Your task to perform on an android device: move a message to another label in the gmail app Image 0: 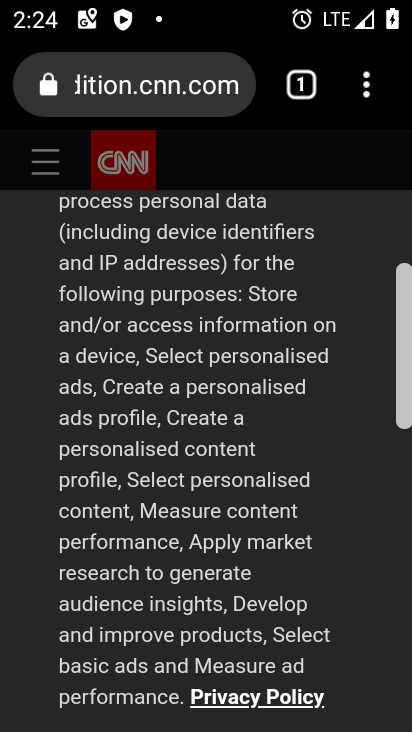
Step 0: press back button
Your task to perform on an android device: move a message to another label in the gmail app Image 1: 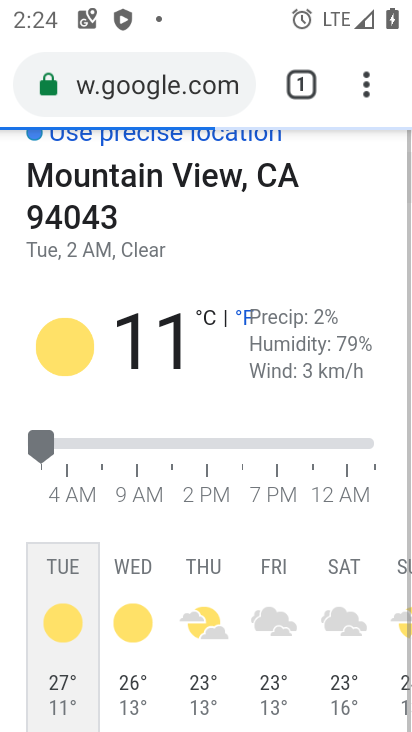
Step 1: press home button
Your task to perform on an android device: move a message to another label in the gmail app Image 2: 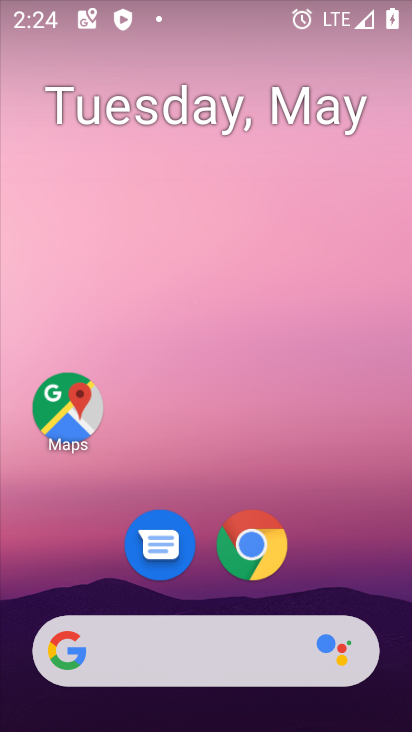
Step 2: drag from (321, 564) to (221, 57)
Your task to perform on an android device: move a message to another label in the gmail app Image 3: 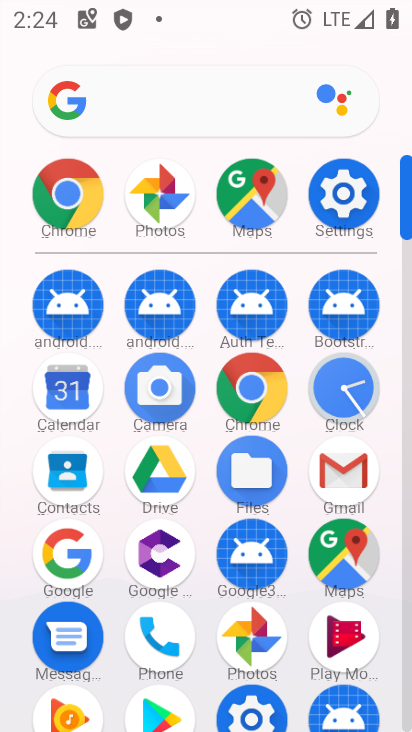
Step 3: click (341, 465)
Your task to perform on an android device: move a message to another label in the gmail app Image 4: 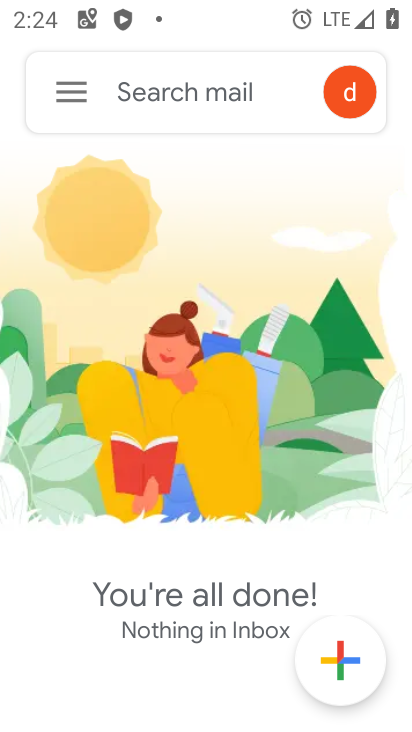
Step 4: click (73, 79)
Your task to perform on an android device: move a message to another label in the gmail app Image 5: 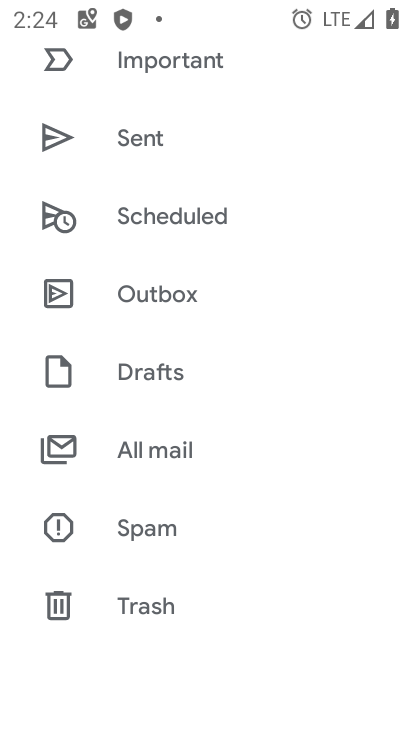
Step 5: drag from (244, 133) to (252, 548)
Your task to perform on an android device: move a message to another label in the gmail app Image 6: 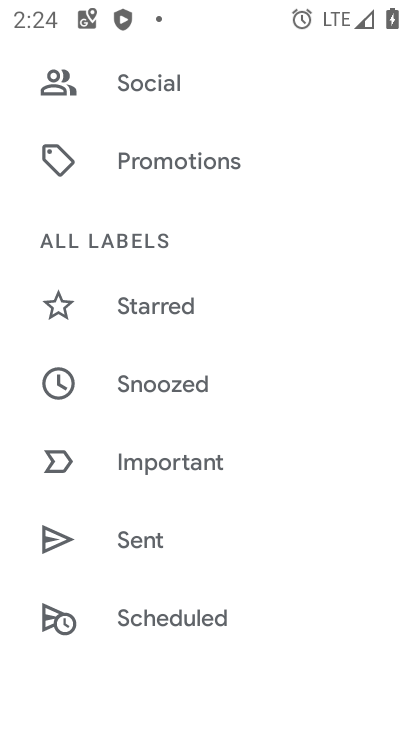
Step 6: drag from (237, 601) to (231, 142)
Your task to perform on an android device: move a message to another label in the gmail app Image 7: 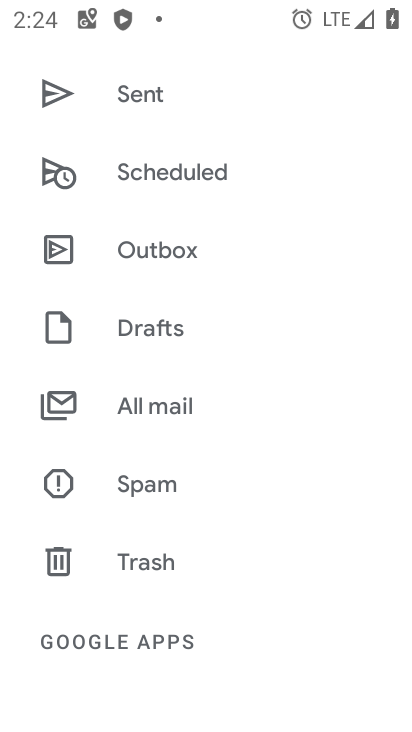
Step 7: click (167, 415)
Your task to perform on an android device: move a message to another label in the gmail app Image 8: 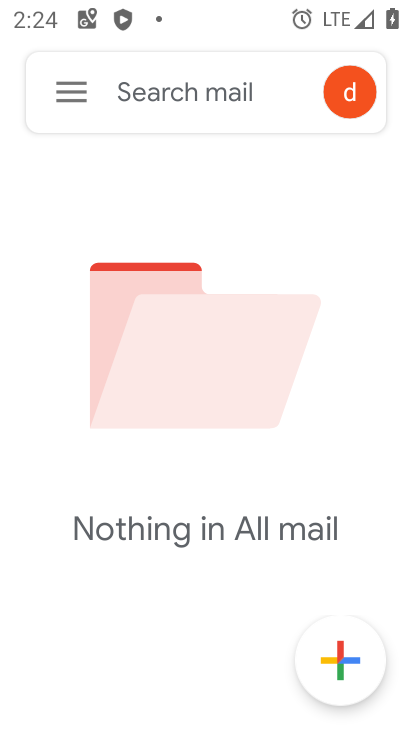
Step 8: click (60, 79)
Your task to perform on an android device: move a message to another label in the gmail app Image 9: 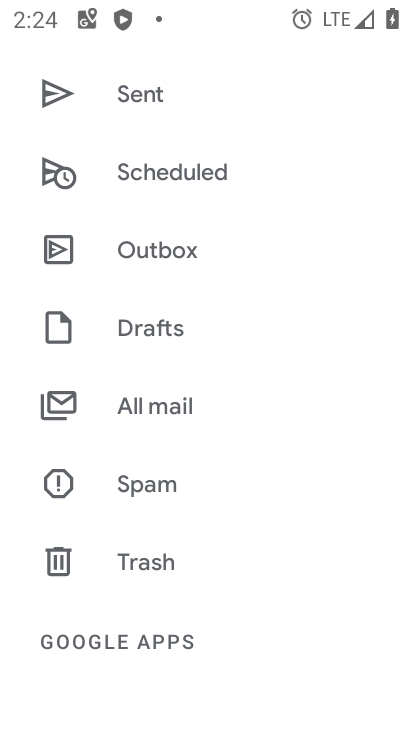
Step 9: drag from (287, 195) to (268, 661)
Your task to perform on an android device: move a message to another label in the gmail app Image 10: 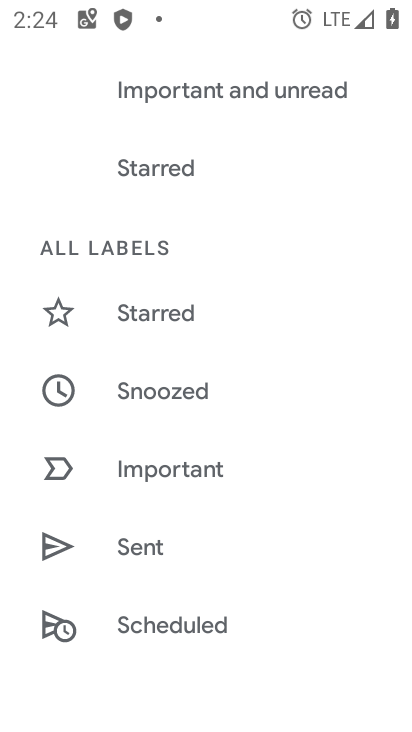
Step 10: drag from (224, 146) to (271, 596)
Your task to perform on an android device: move a message to another label in the gmail app Image 11: 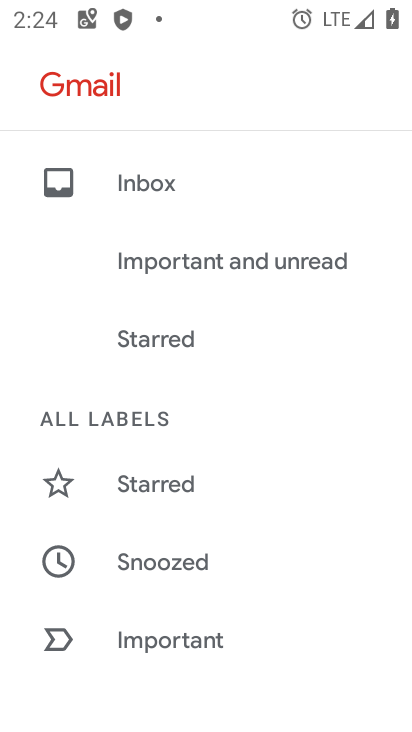
Step 11: click (161, 180)
Your task to perform on an android device: move a message to another label in the gmail app Image 12: 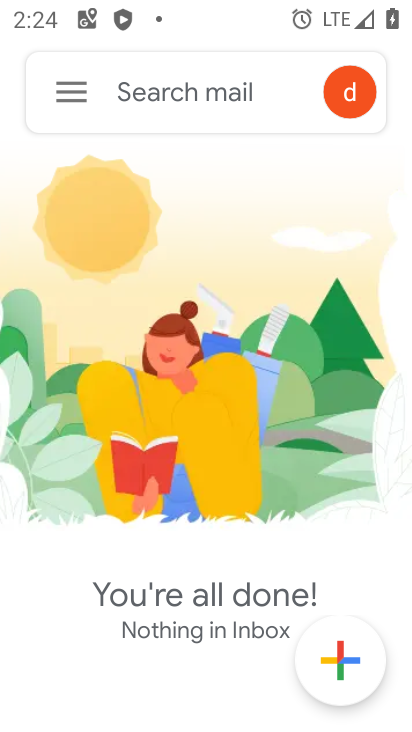
Step 12: task complete